Your task to perform on an android device: change text size in settings app Image 0: 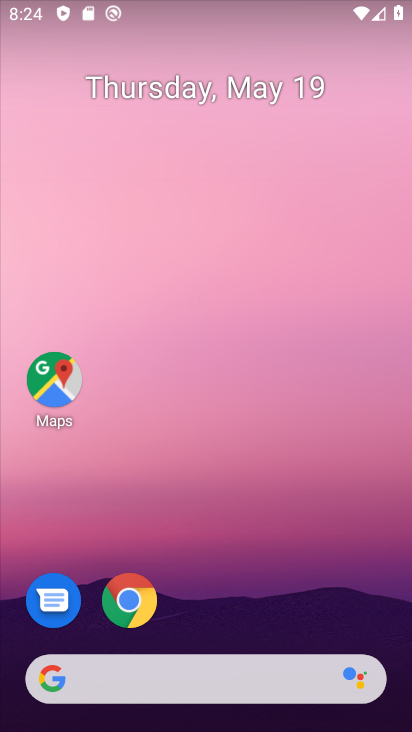
Step 0: drag from (301, 633) to (258, 206)
Your task to perform on an android device: change text size in settings app Image 1: 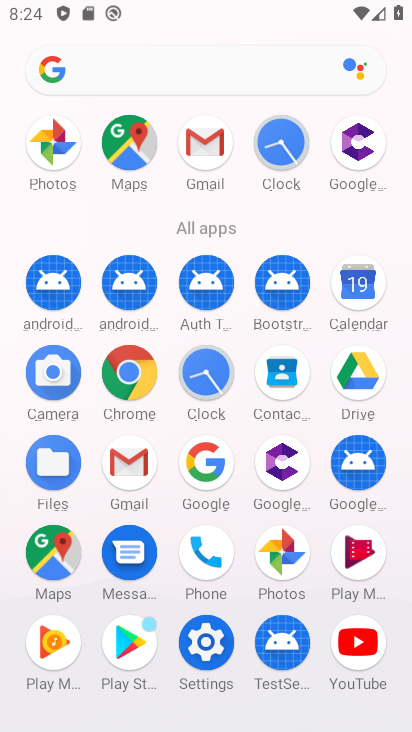
Step 1: click (201, 646)
Your task to perform on an android device: change text size in settings app Image 2: 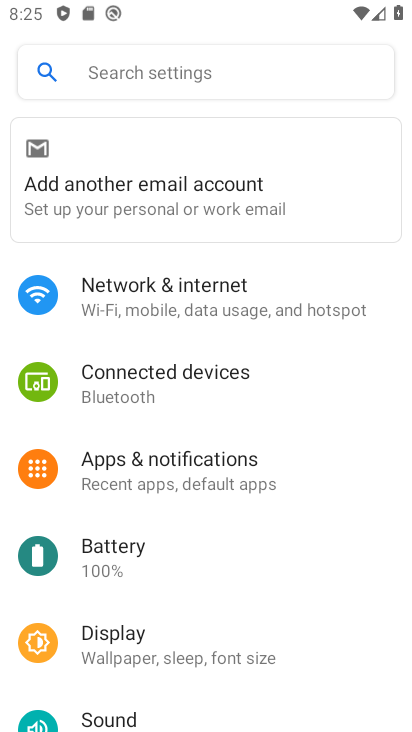
Step 2: drag from (242, 598) to (290, 188)
Your task to perform on an android device: change text size in settings app Image 3: 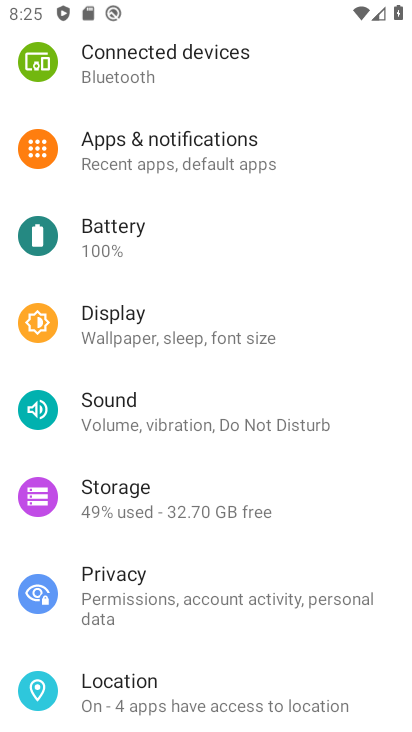
Step 3: drag from (163, 672) to (269, 181)
Your task to perform on an android device: change text size in settings app Image 4: 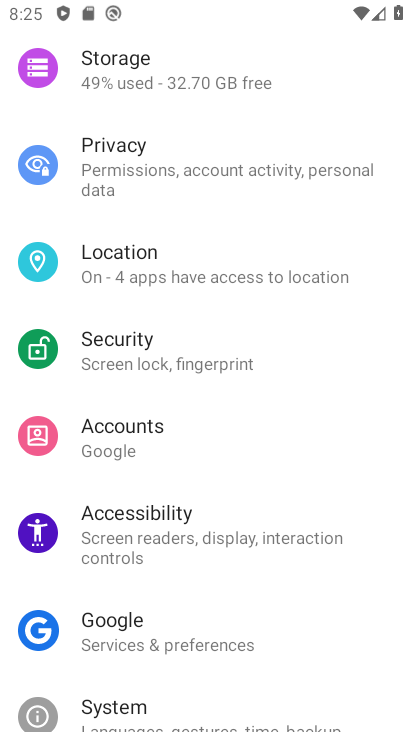
Step 4: drag from (239, 670) to (265, 239)
Your task to perform on an android device: change text size in settings app Image 5: 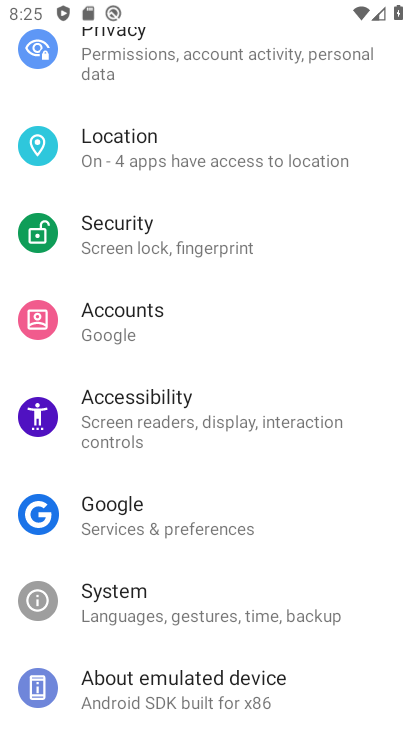
Step 5: drag from (216, 267) to (277, 649)
Your task to perform on an android device: change text size in settings app Image 6: 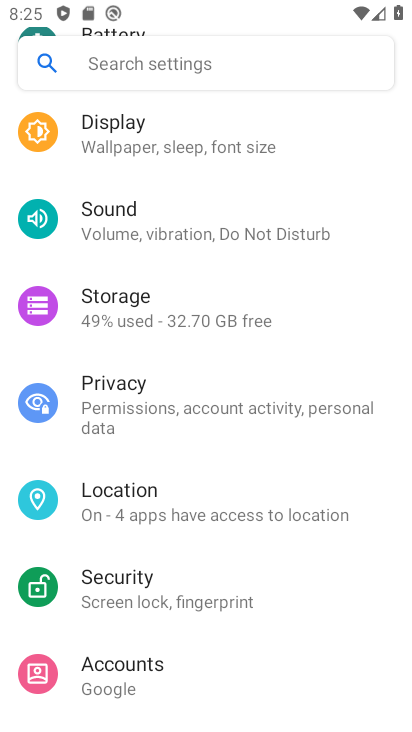
Step 6: click (205, 160)
Your task to perform on an android device: change text size in settings app Image 7: 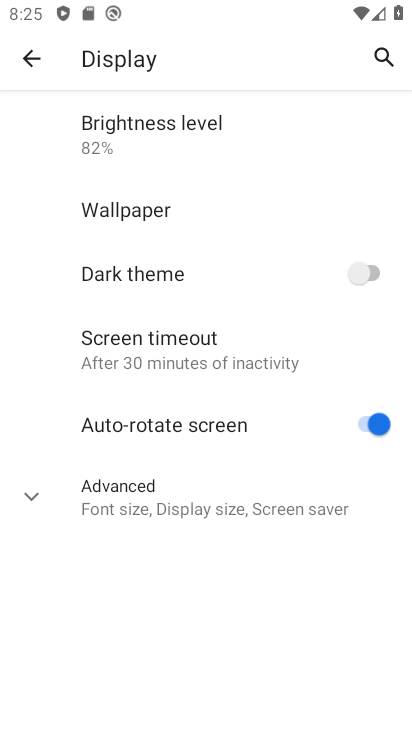
Step 7: click (106, 503)
Your task to perform on an android device: change text size in settings app Image 8: 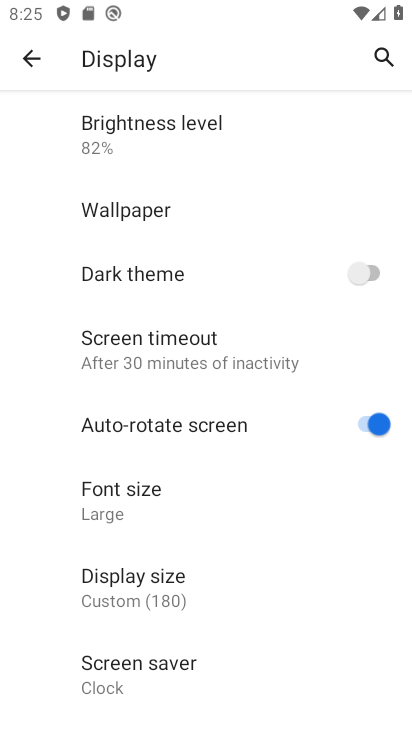
Step 8: click (133, 491)
Your task to perform on an android device: change text size in settings app Image 9: 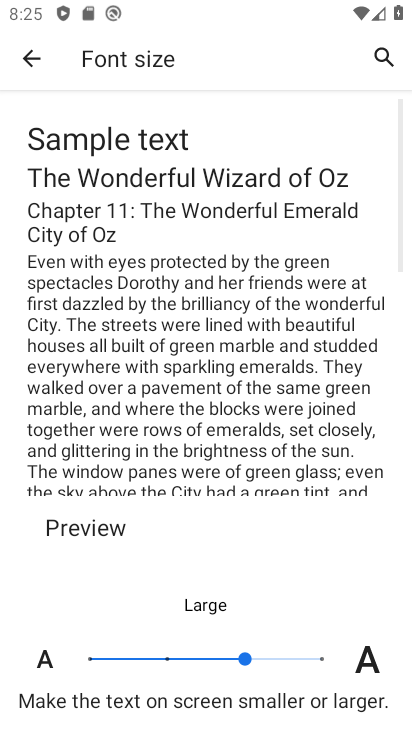
Step 9: click (92, 654)
Your task to perform on an android device: change text size in settings app Image 10: 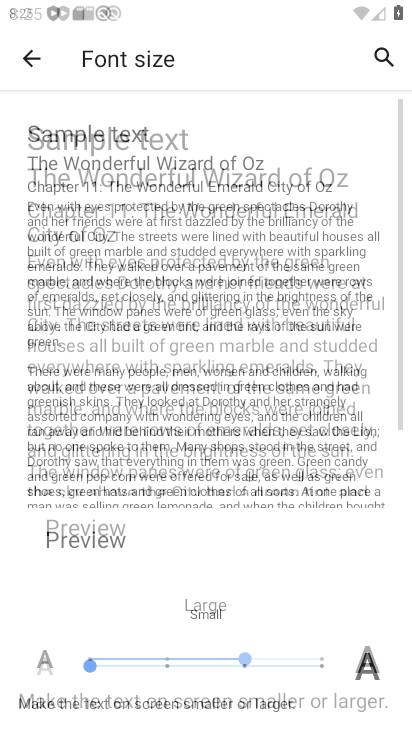
Step 10: click (93, 660)
Your task to perform on an android device: change text size in settings app Image 11: 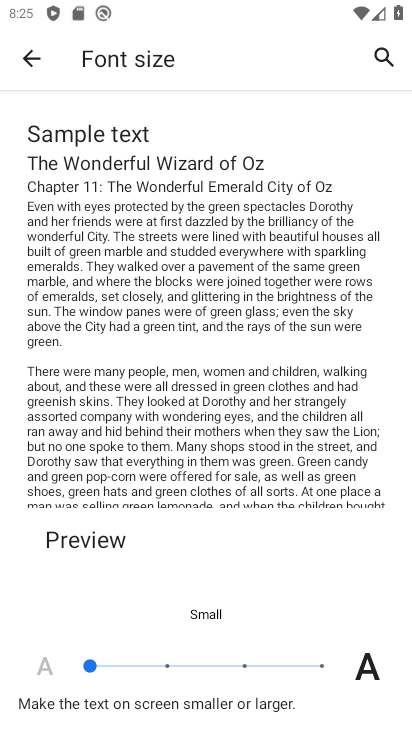
Step 11: task complete